Your task to perform on an android device: open app "Contacts" Image 0: 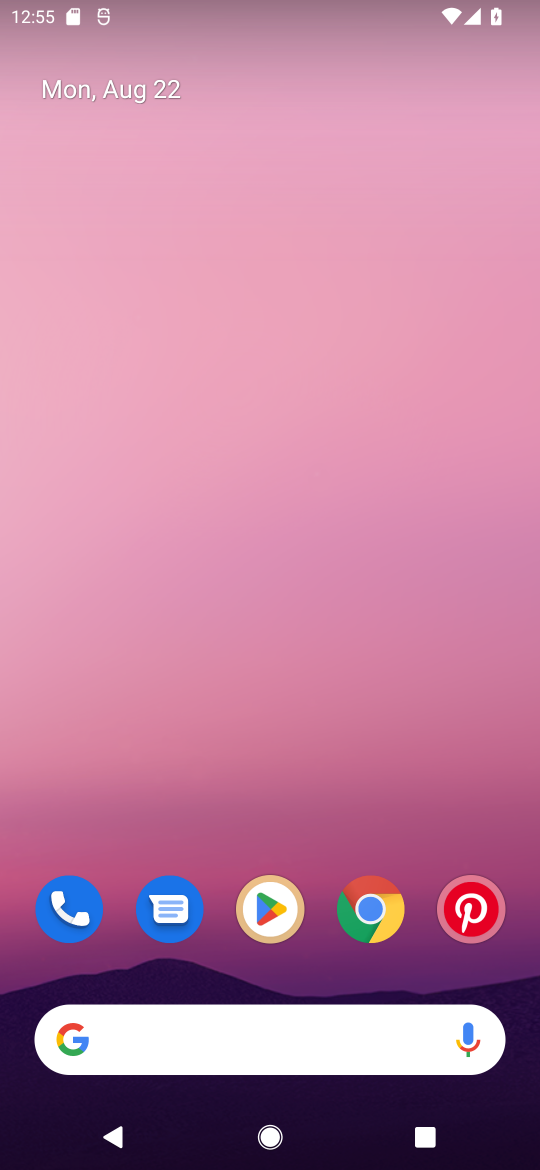
Step 0: drag from (226, 919) to (343, 180)
Your task to perform on an android device: open app "Contacts" Image 1: 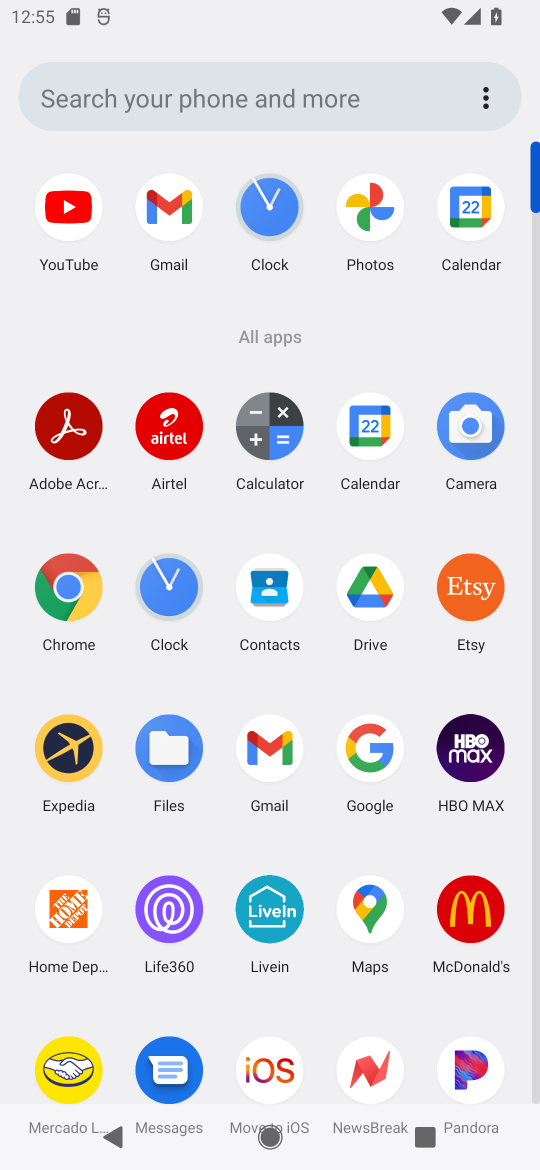
Step 1: click (261, 591)
Your task to perform on an android device: open app "Contacts" Image 2: 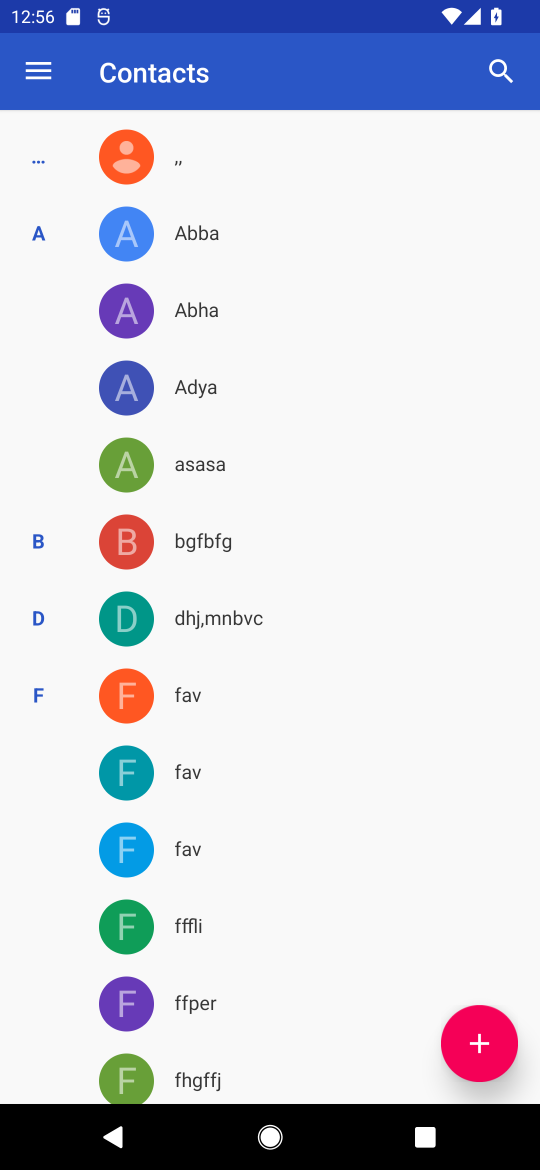
Step 2: task complete